Your task to perform on an android device: What's the price of the Galaxy phone? Image 0: 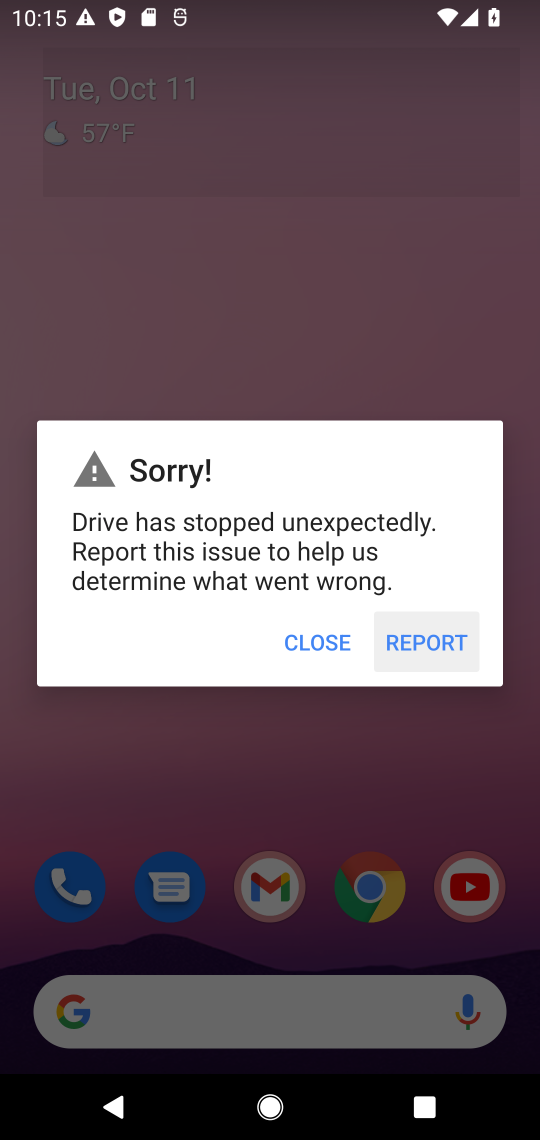
Step 0: press home button
Your task to perform on an android device: What's the price of the Galaxy phone? Image 1: 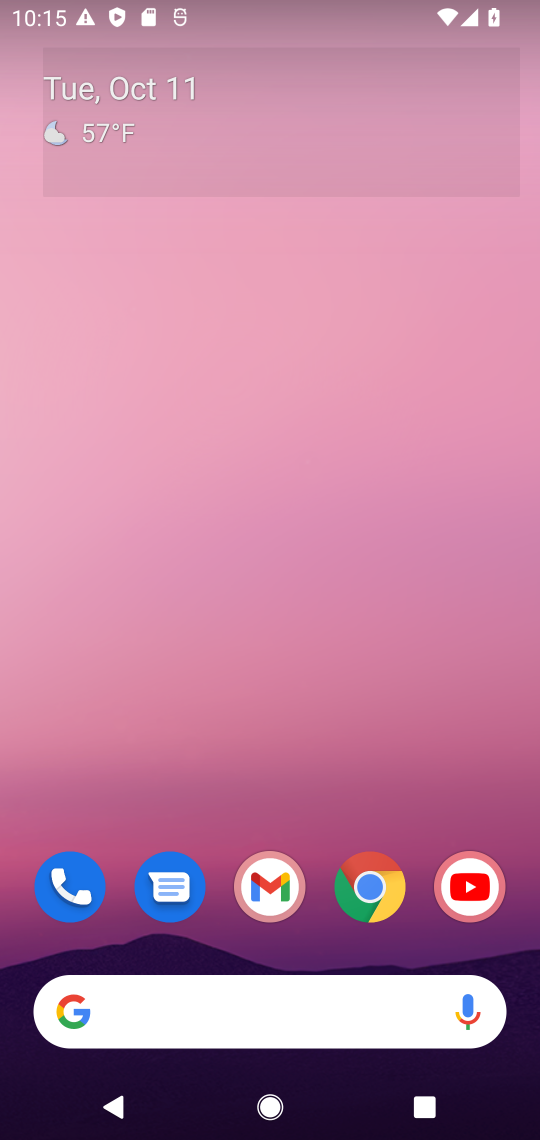
Step 1: click (239, 1018)
Your task to perform on an android device: What's the price of the Galaxy phone? Image 2: 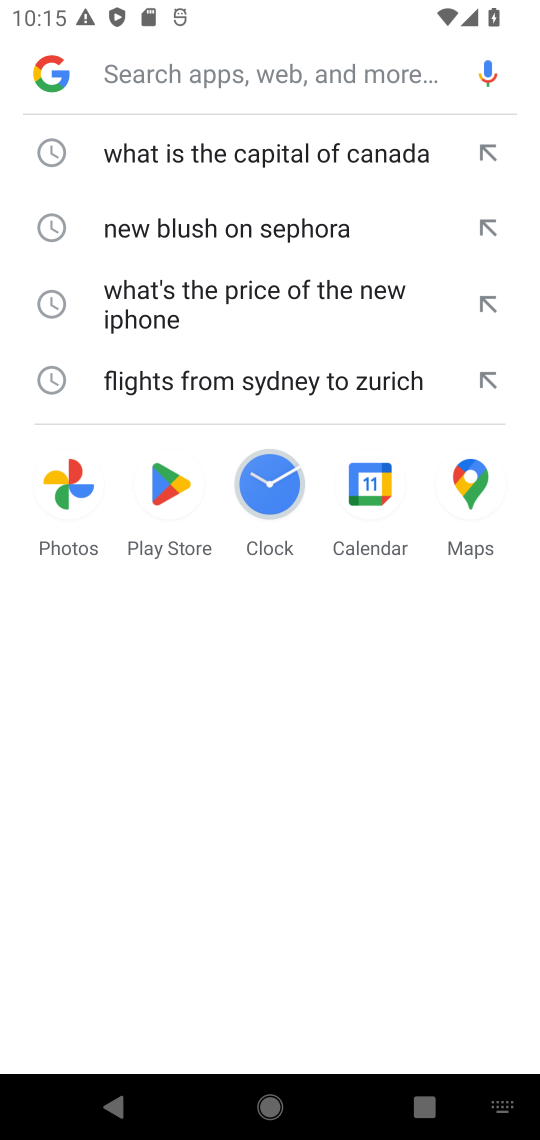
Step 2: press enter
Your task to perform on an android device: What's the price of the Galaxy phone? Image 3: 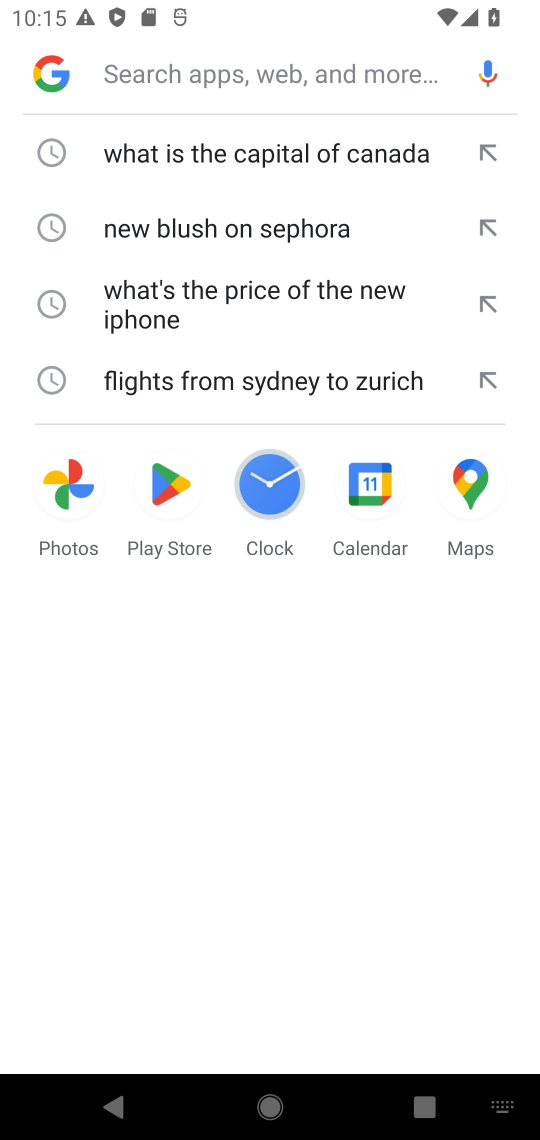
Step 3: type "What's the price of the Galaxy phone"
Your task to perform on an android device: What's the price of the Galaxy phone? Image 4: 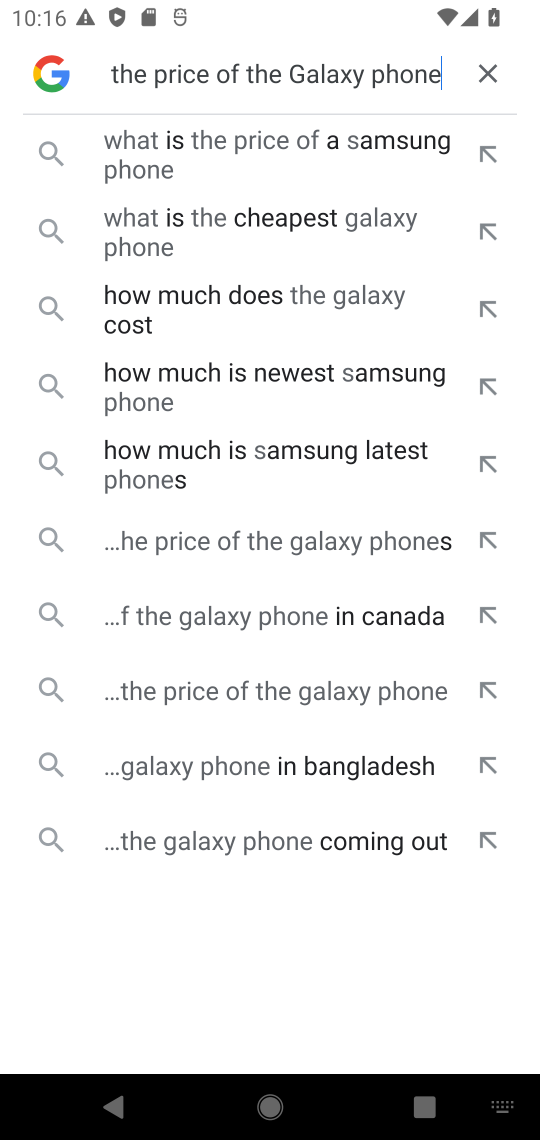
Step 4: press enter
Your task to perform on an android device: What's the price of the Galaxy phone? Image 5: 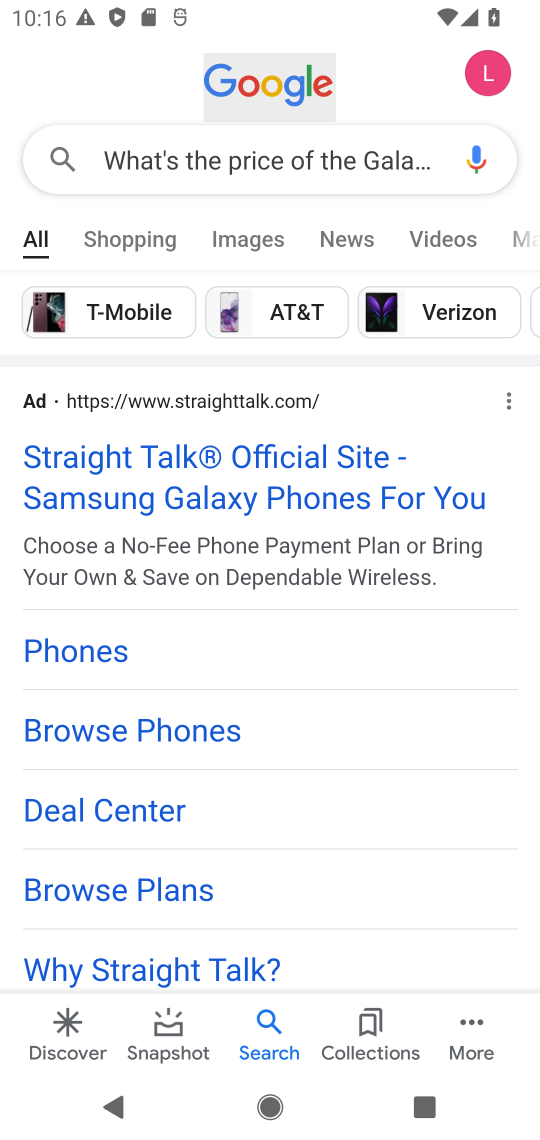
Step 5: drag from (379, 882) to (377, 607)
Your task to perform on an android device: What's the price of the Galaxy phone? Image 6: 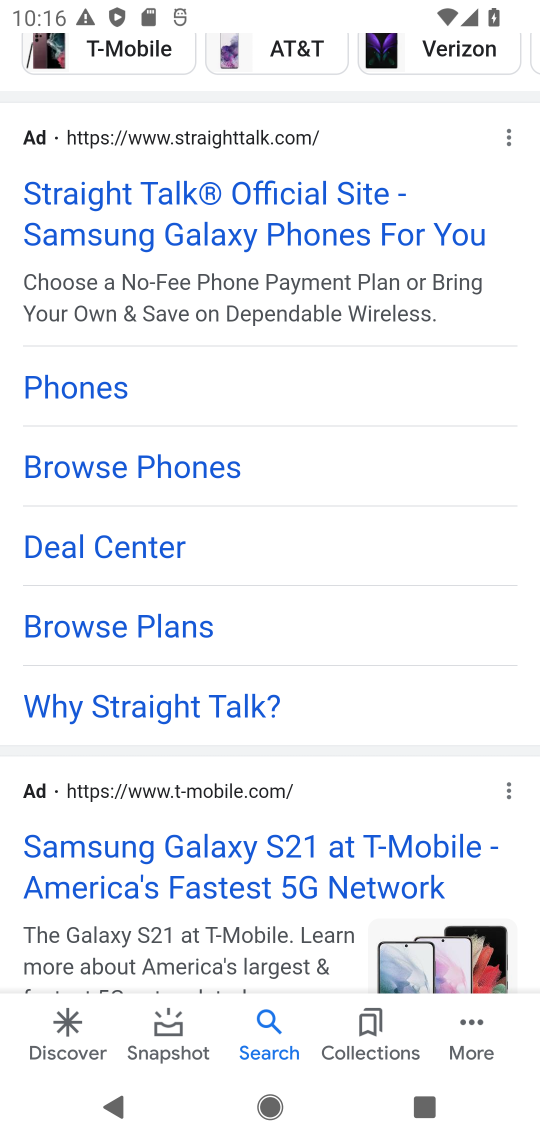
Step 6: drag from (376, 809) to (383, 451)
Your task to perform on an android device: What's the price of the Galaxy phone? Image 7: 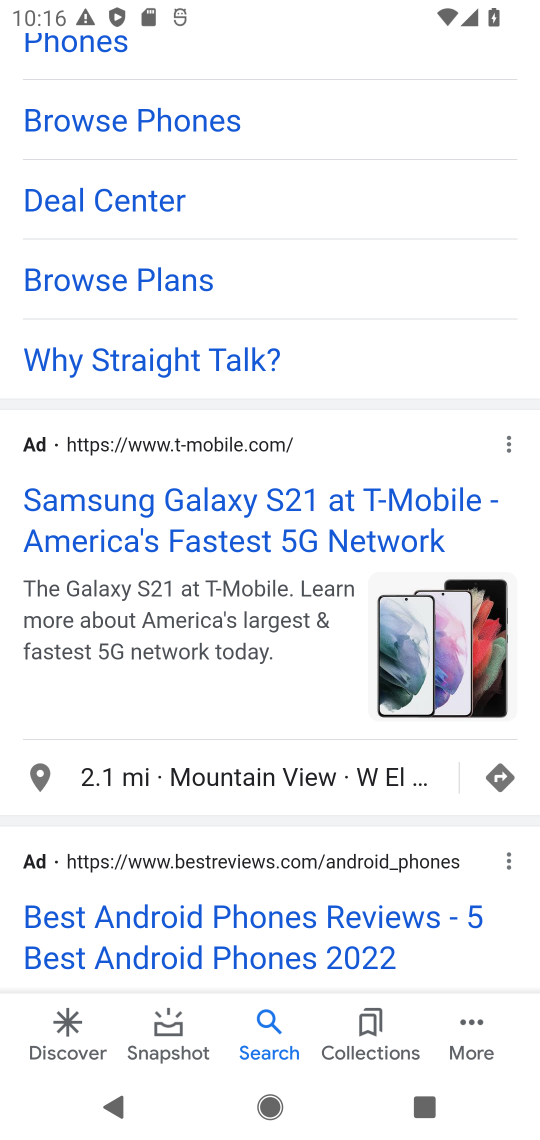
Step 7: drag from (280, 666) to (280, 529)
Your task to perform on an android device: What's the price of the Galaxy phone? Image 8: 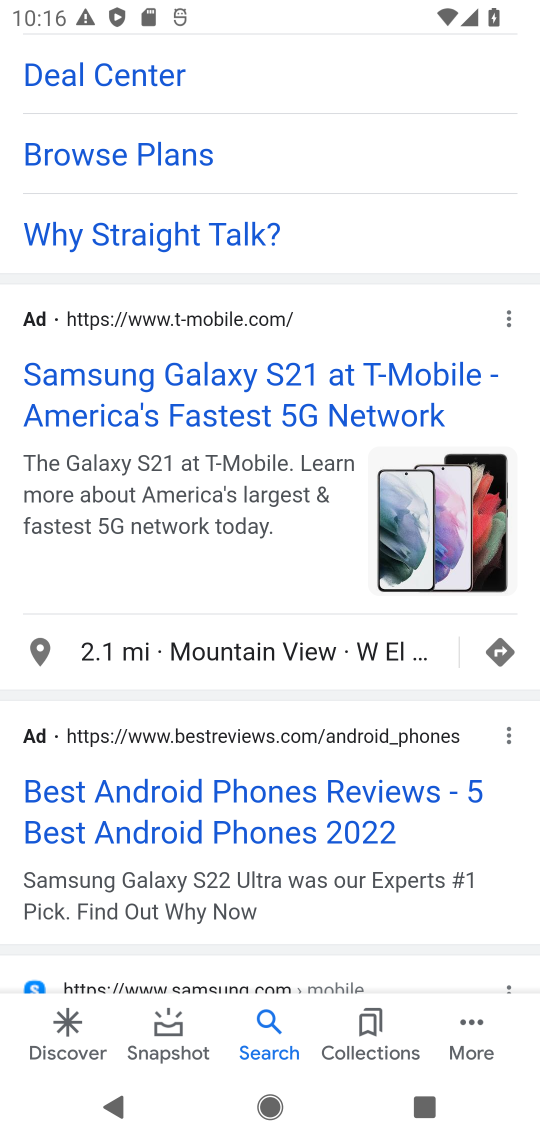
Step 8: drag from (264, 733) to (255, 483)
Your task to perform on an android device: What's the price of the Galaxy phone? Image 9: 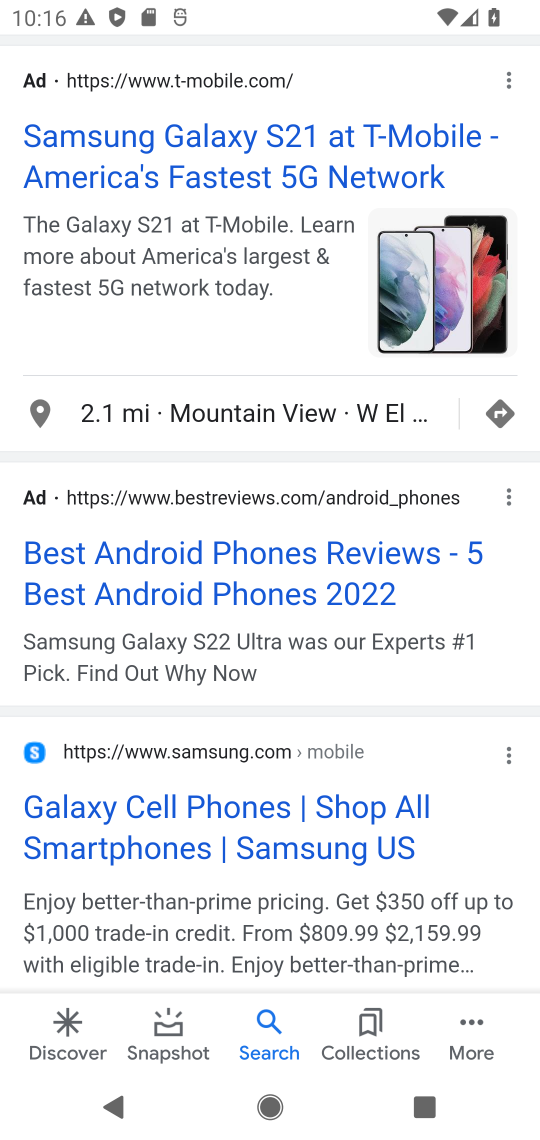
Step 9: drag from (303, 796) to (298, 374)
Your task to perform on an android device: What's the price of the Galaxy phone? Image 10: 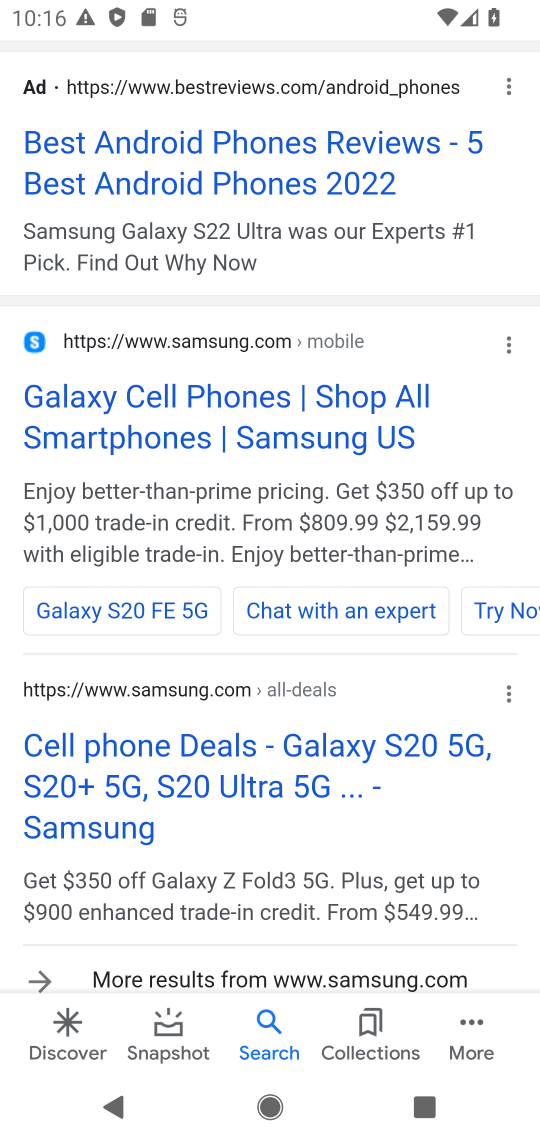
Step 10: drag from (292, 864) to (289, 429)
Your task to perform on an android device: What's the price of the Galaxy phone? Image 11: 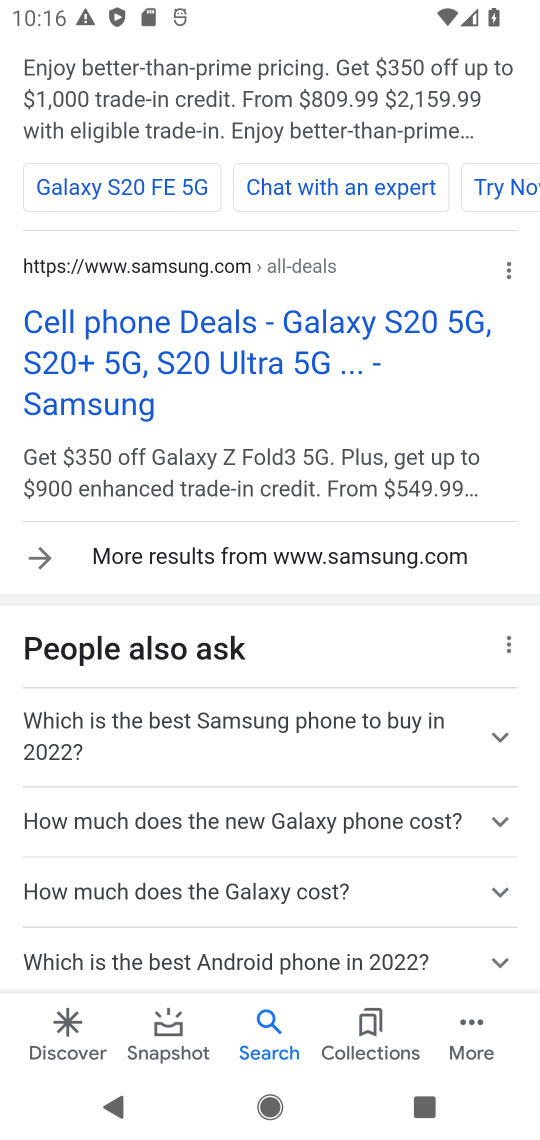
Step 11: click (288, 347)
Your task to perform on an android device: What's the price of the Galaxy phone? Image 12: 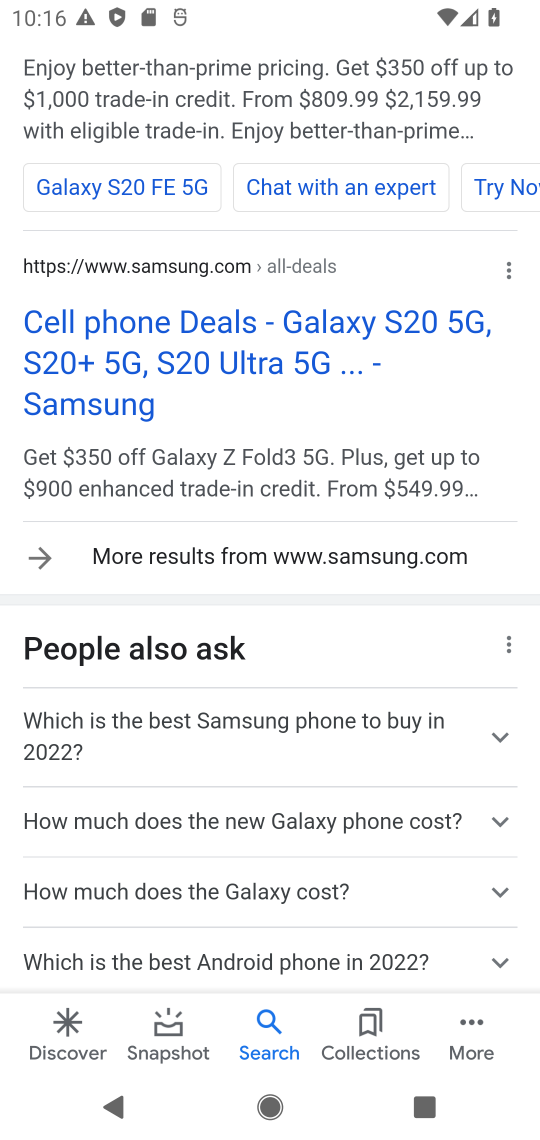
Step 12: task complete